Your task to perform on an android device: open chrome privacy settings Image 0: 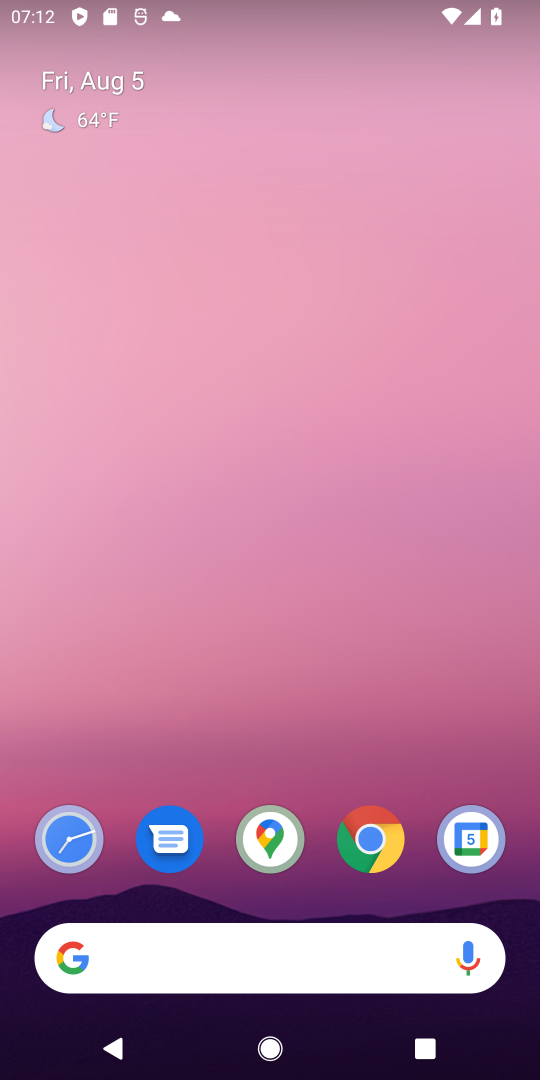
Step 0: drag from (313, 900) to (252, 142)
Your task to perform on an android device: open chrome privacy settings Image 1: 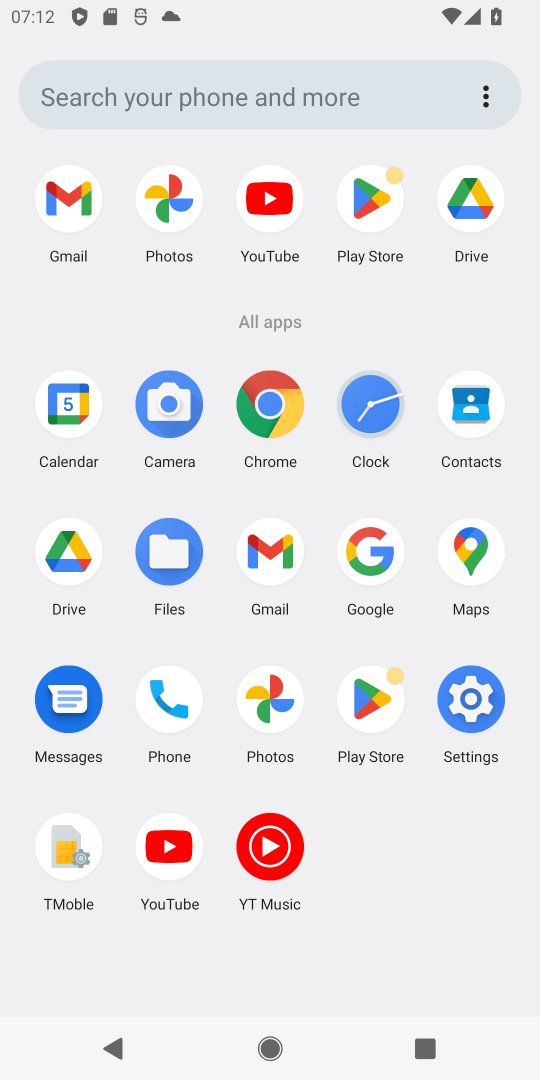
Step 1: click (274, 399)
Your task to perform on an android device: open chrome privacy settings Image 2: 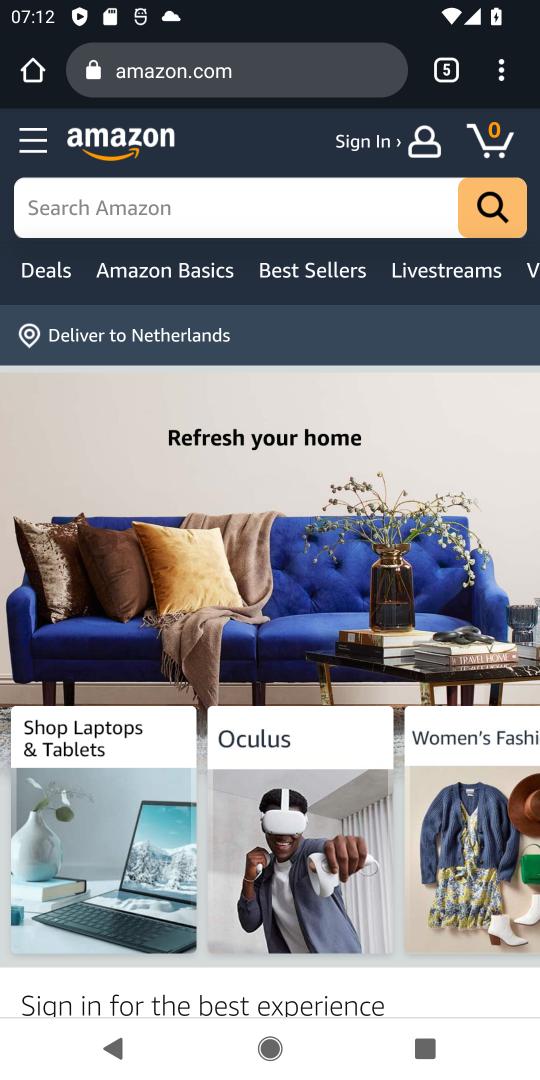
Step 2: click (500, 80)
Your task to perform on an android device: open chrome privacy settings Image 3: 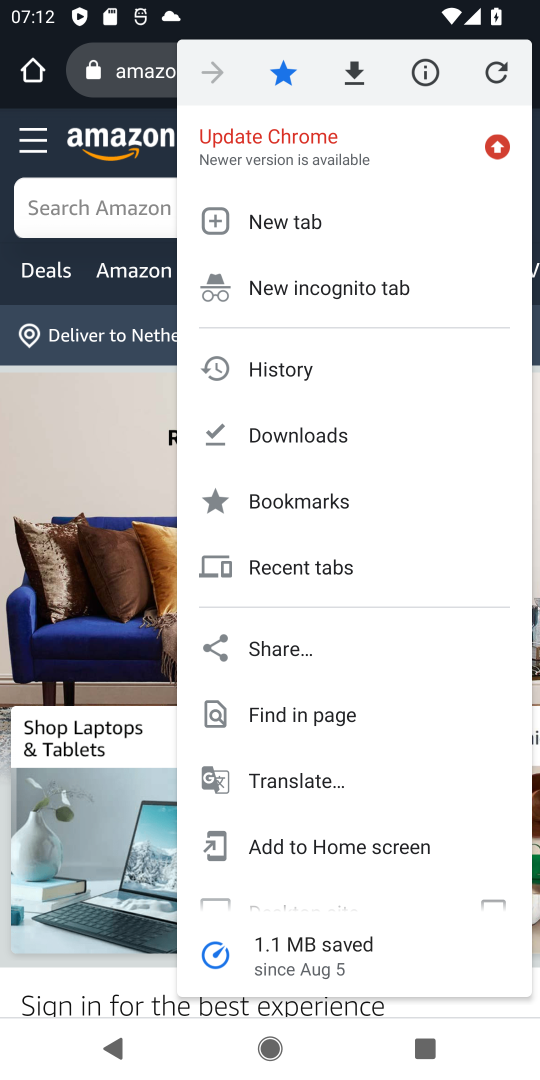
Step 3: drag from (282, 870) to (296, 386)
Your task to perform on an android device: open chrome privacy settings Image 4: 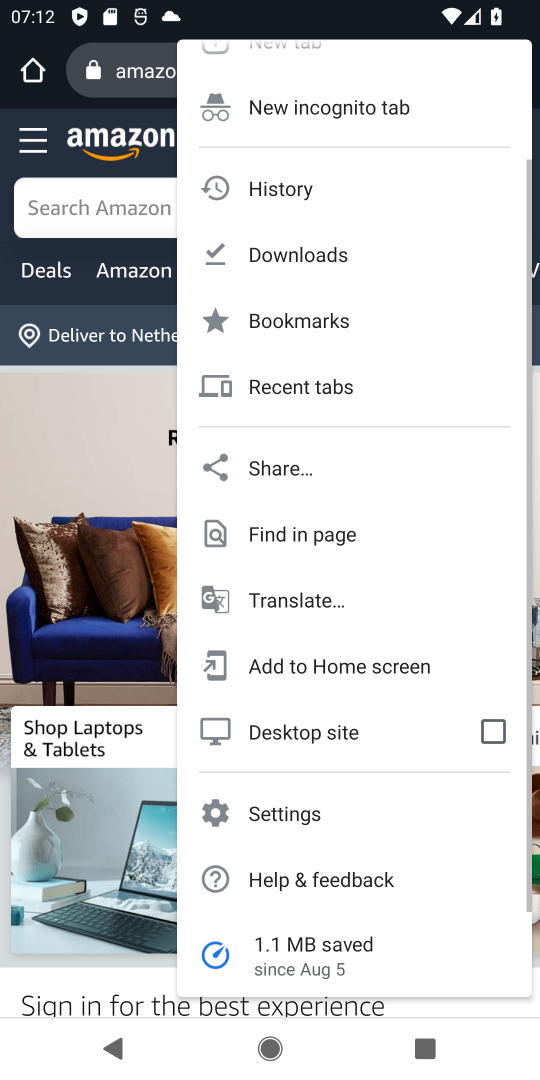
Step 4: click (297, 805)
Your task to perform on an android device: open chrome privacy settings Image 5: 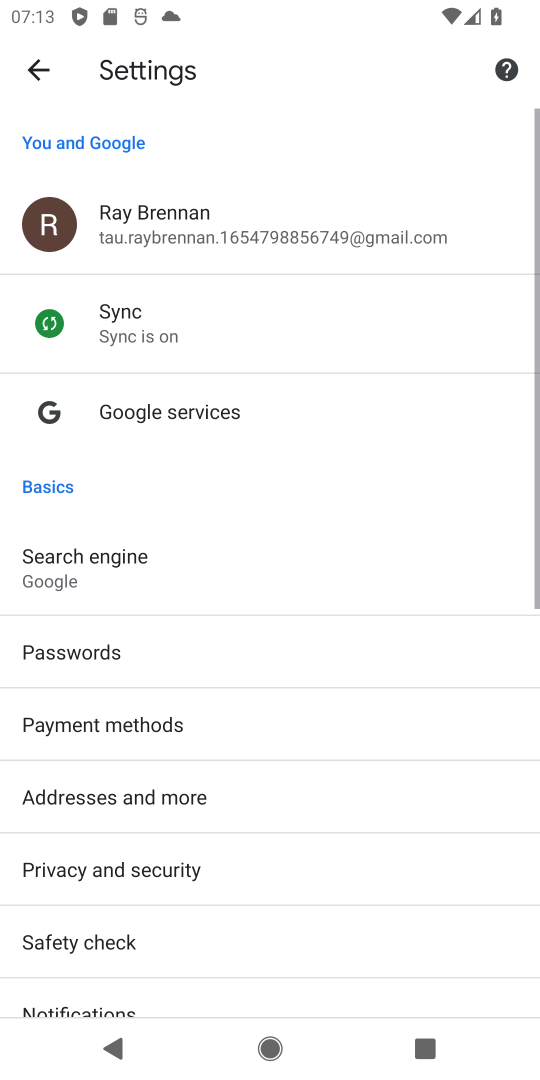
Step 5: drag from (145, 910) to (162, 493)
Your task to perform on an android device: open chrome privacy settings Image 6: 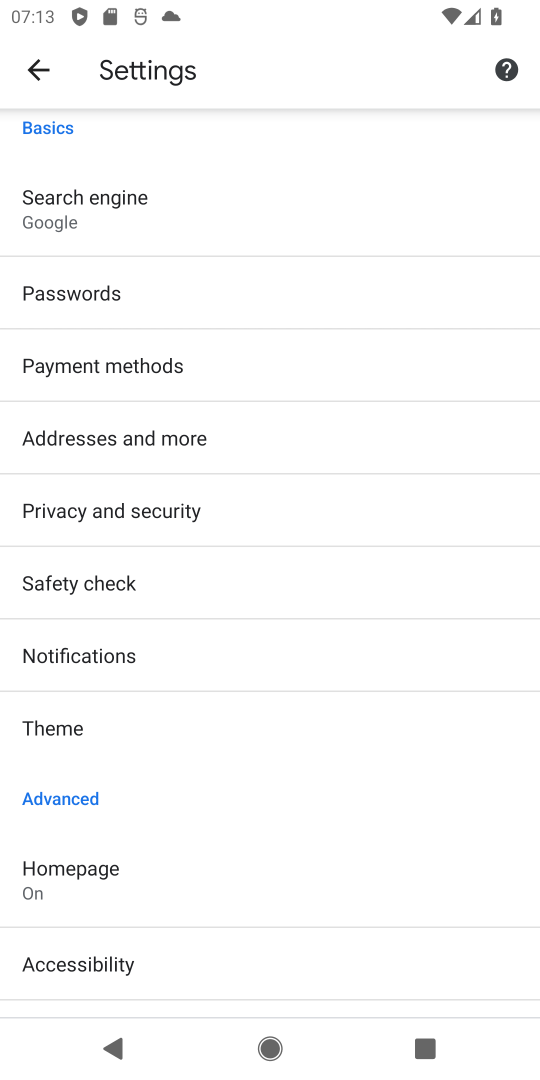
Step 6: drag from (128, 904) to (139, 415)
Your task to perform on an android device: open chrome privacy settings Image 7: 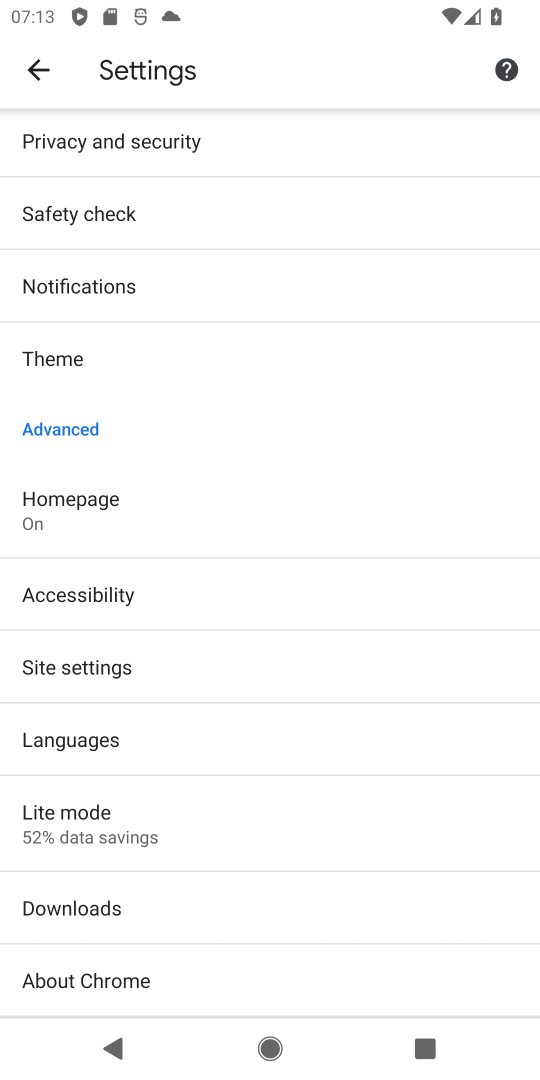
Step 7: click (93, 137)
Your task to perform on an android device: open chrome privacy settings Image 8: 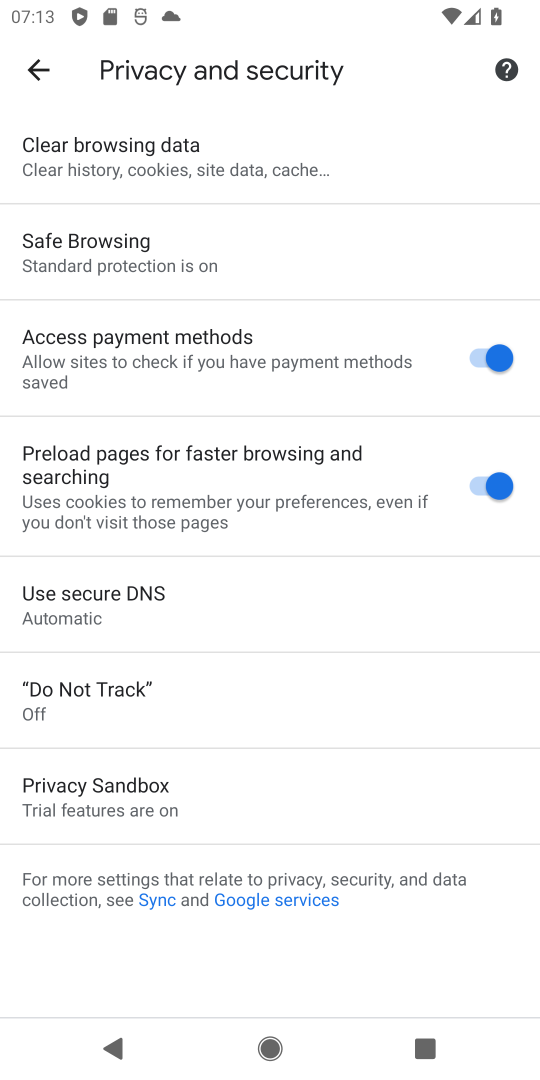
Step 8: task complete